Your task to perform on an android device: open app "Google Play services" (install if not already installed) Image 0: 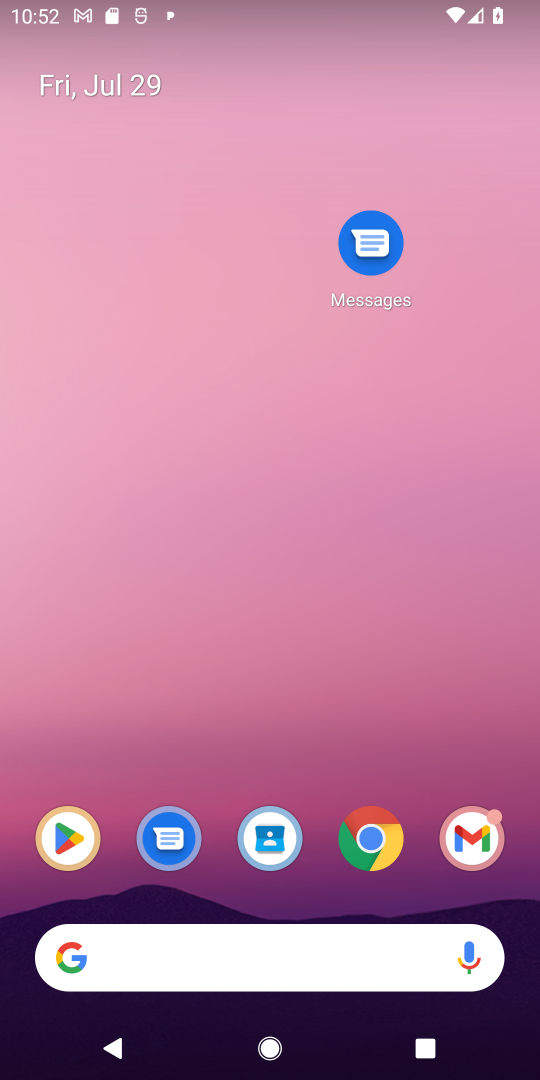
Step 0: click (72, 846)
Your task to perform on an android device: open app "Google Play services" (install if not already installed) Image 1: 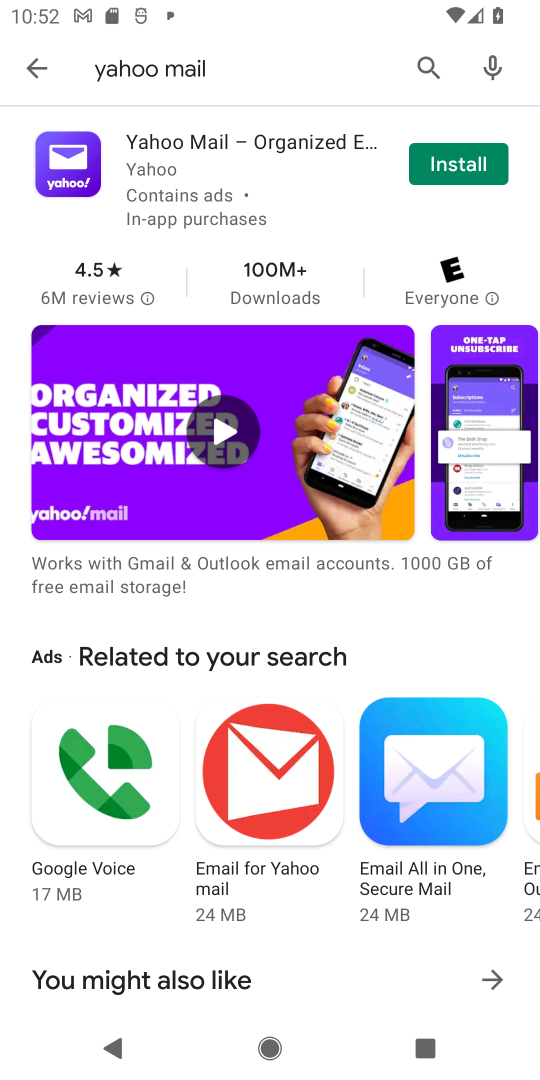
Step 1: click (253, 80)
Your task to perform on an android device: open app "Google Play services" (install if not already installed) Image 2: 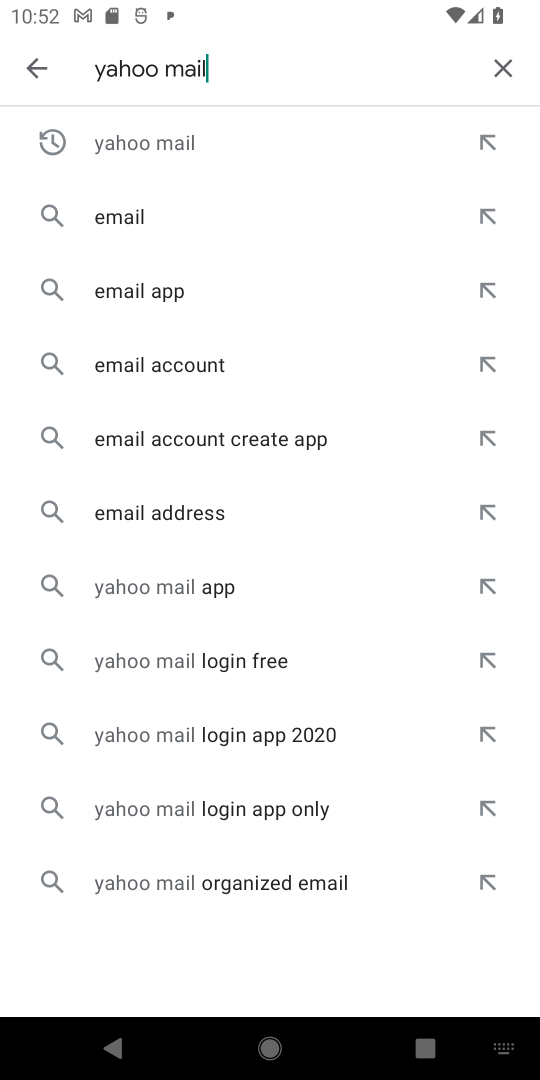
Step 2: click (492, 69)
Your task to perform on an android device: open app "Google Play services" (install if not already installed) Image 3: 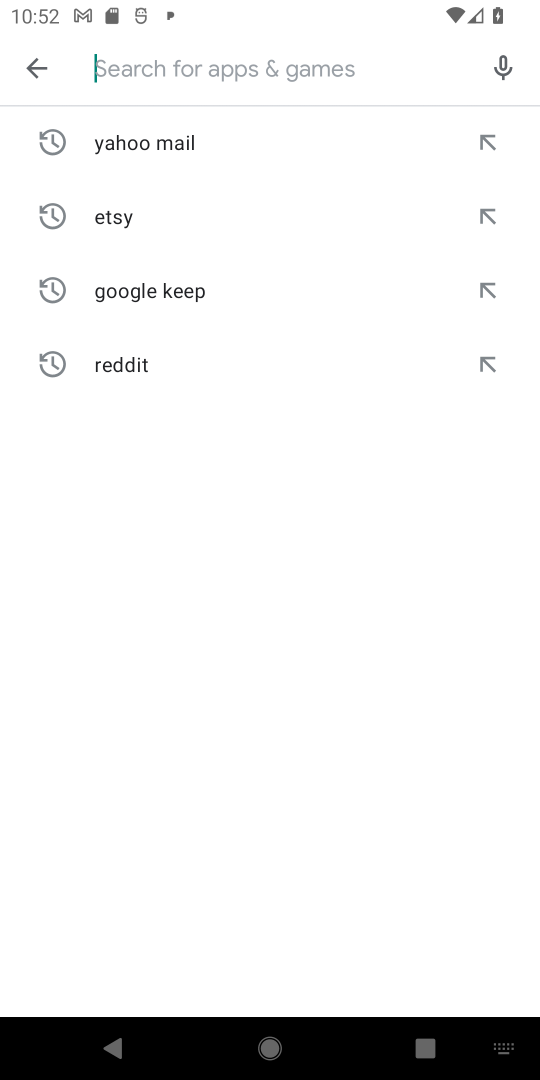
Step 3: type "Google play services"
Your task to perform on an android device: open app "Google Play services" (install if not already installed) Image 4: 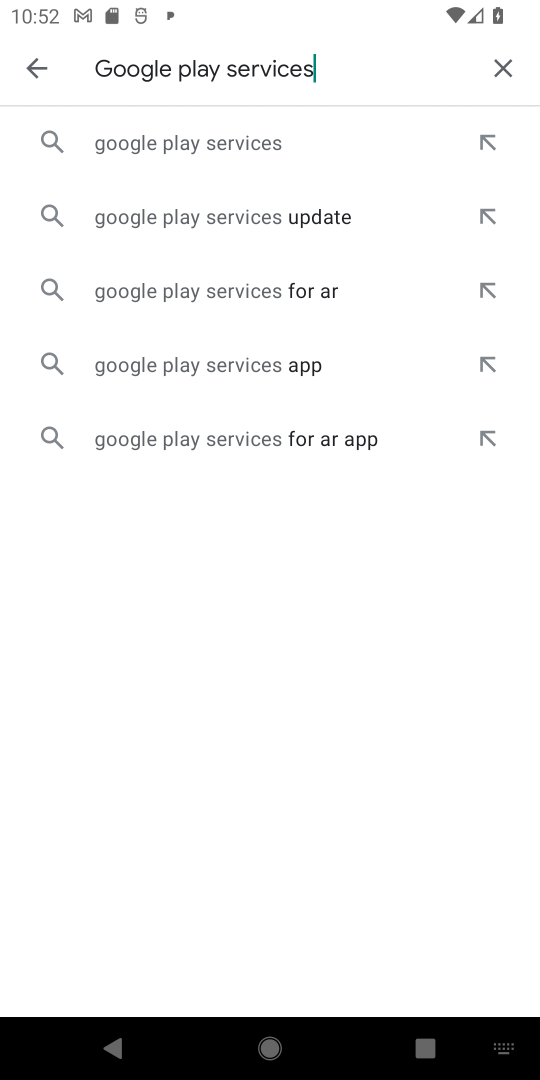
Step 4: click (164, 156)
Your task to perform on an android device: open app "Google Play services" (install if not already installed) Image 5: 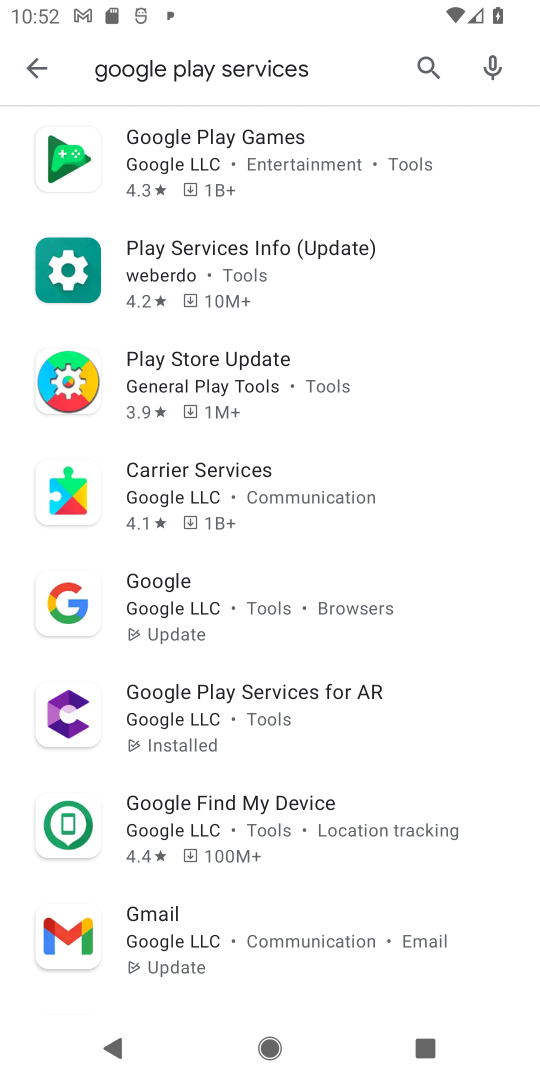
Step 5: click (281, 171)
Your task to perform on an android device: open app "Google Play services" (install if not already installed) Image 6: 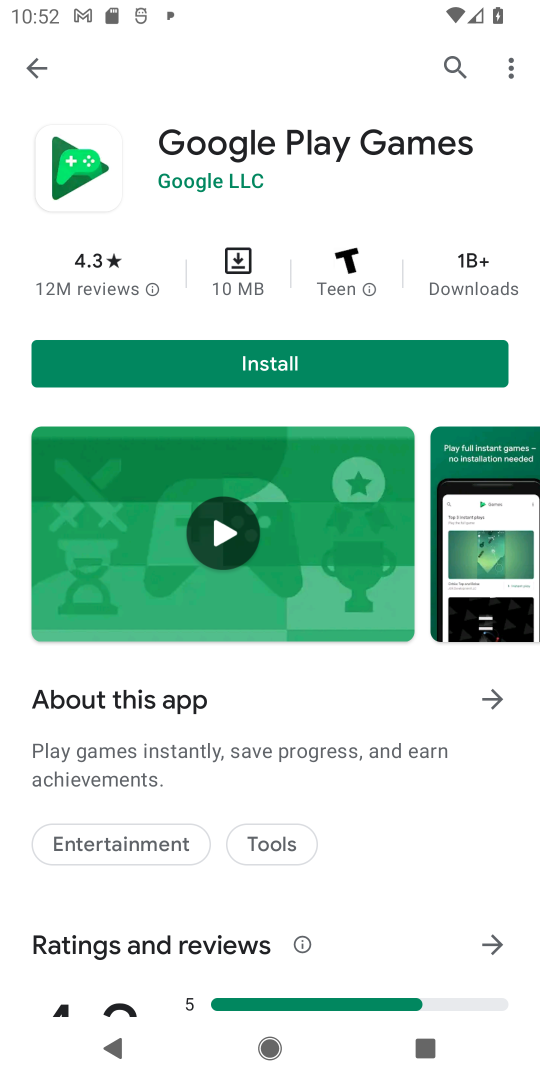
Step 6: task complete